Your task to perform on an android device: create a new album in the google photos Image 0: 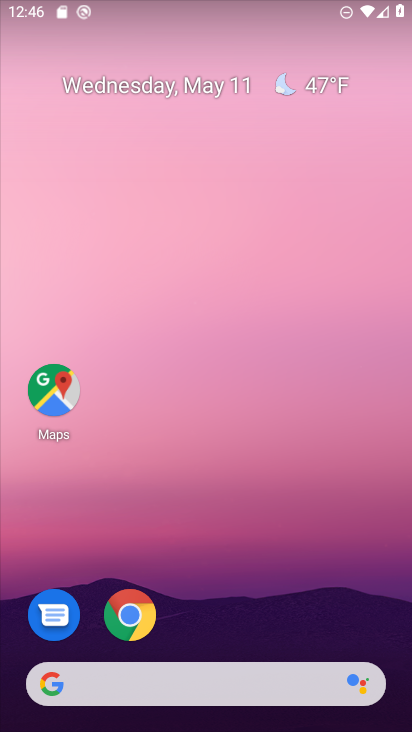
Step 0: drag from (312, 553) to (287, 120)
Your task to perform on an android device: create a new album in the google photos Image 1: 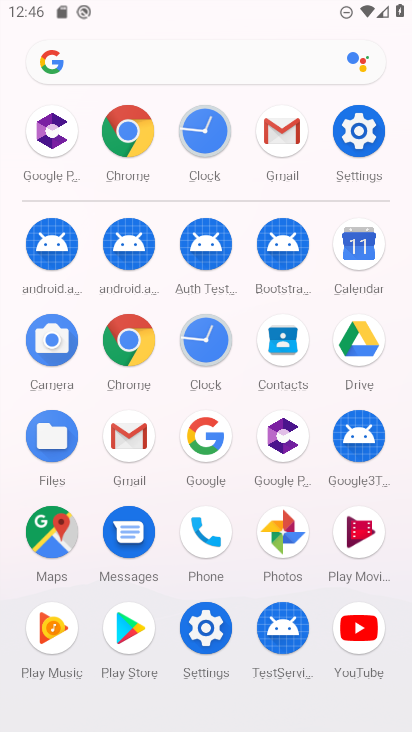
Step 1: click (299, 532)
Your task to perform on an android device: create a new album in the google photos Image 2: 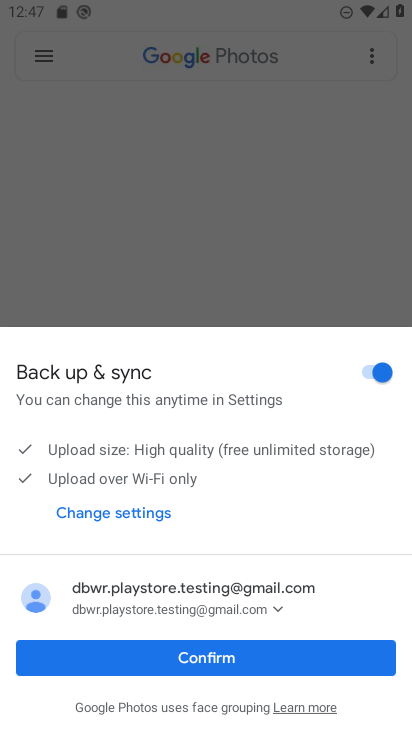
Step 2: click (236, 663)
Your task to perform on an android device: create a new album in the google photos Image 3: 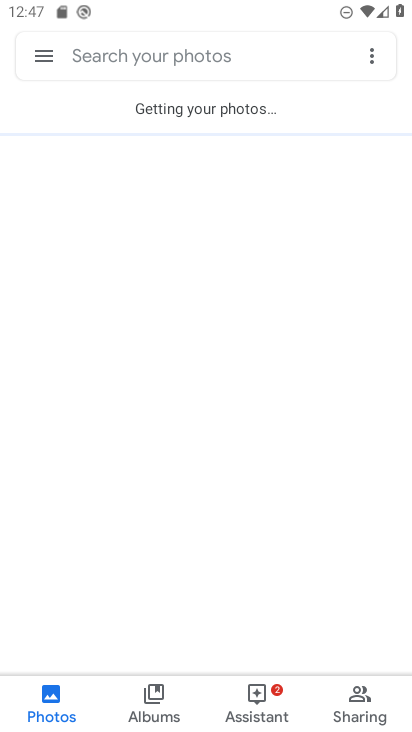
Step 3: click (144, 703)
Your task to perform on an android device: create a new album in the google photos Image 4: 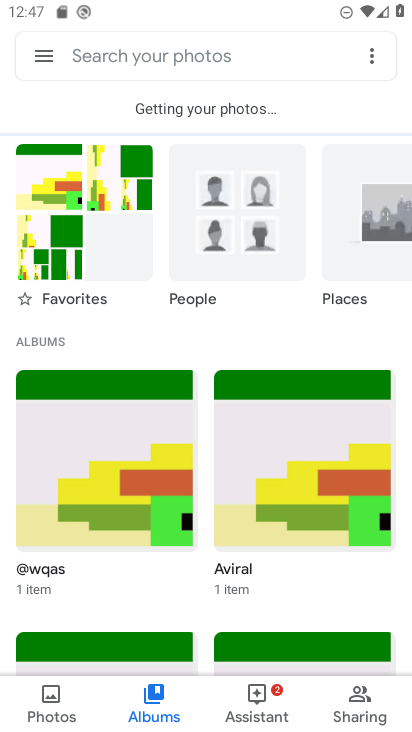
Step 4: task complete